Your task to perform on an android device: Go to battery settings Image 0: 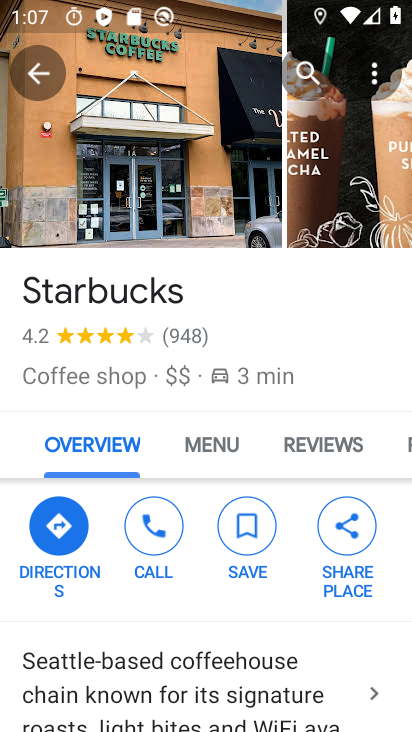
Step 0: press home button
Your task to perform on an android device: Go to battery settings Image 1: 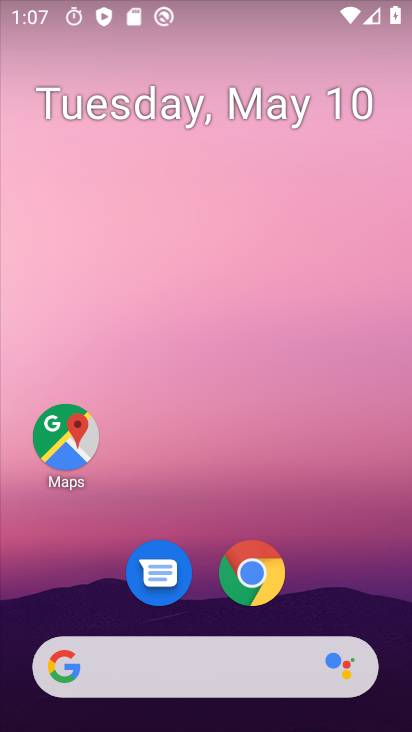
Step 1: drag from (340, 534) to (152, 3)
Your task to perform on an android device: Go to battery settings Image 2: 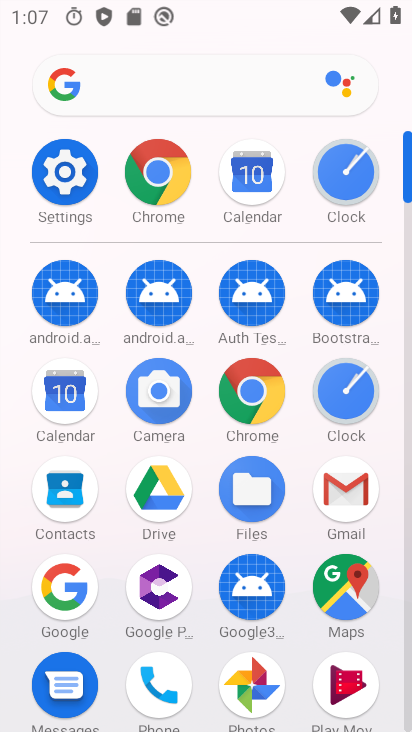
Step 2: click (51, 238)
Your task to perform on an android device: Go to battery settings Image 3: 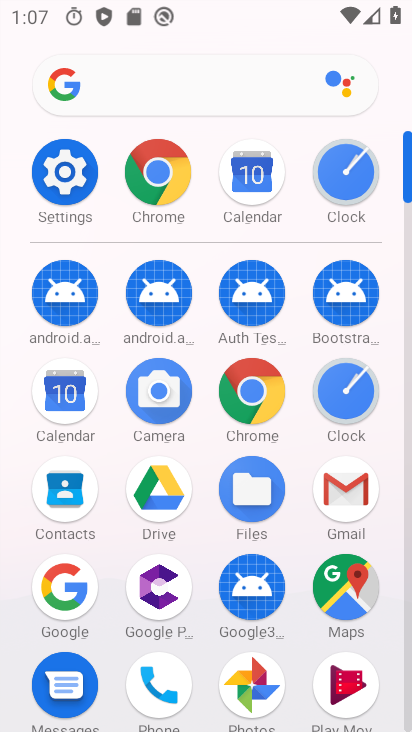
Step 3: click (70, 177)
Your task to perform on an android device: Go to battery settings Image 4: 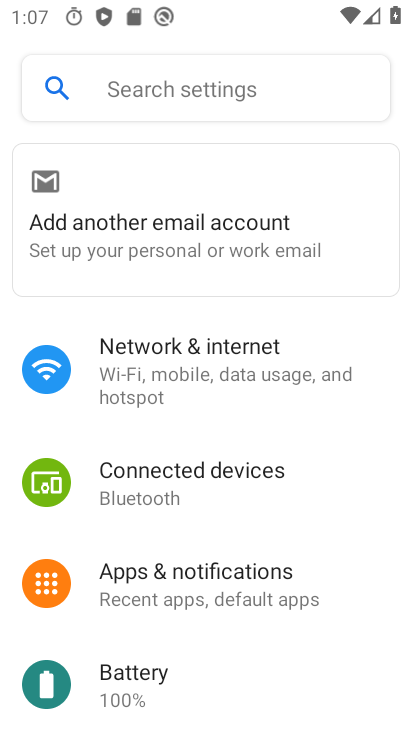
Step 4: drag from (163, 359) to (175, 258)
Your task to perform on an android device: Go to battery settings Image 5: 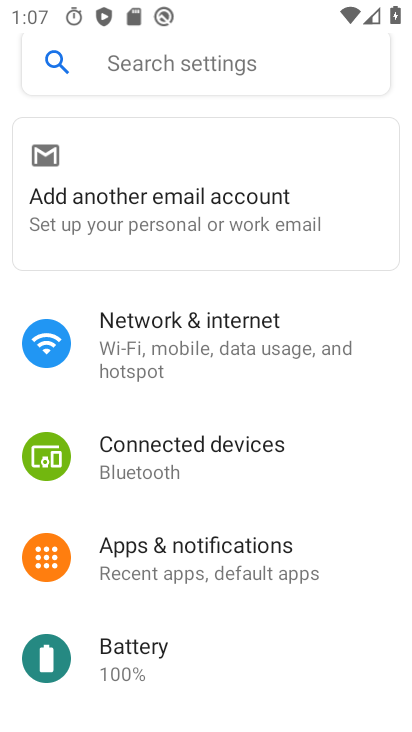
Step 5: click (138, 659)
Your task to perform on an android device: Go to battery settings Image 6: 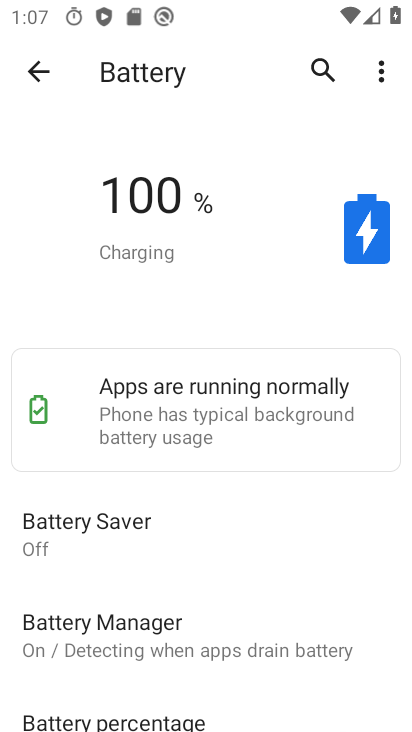
Step 6: task complete